Your task to perform on an android device: see sites visited before in the chrome app Image 0: 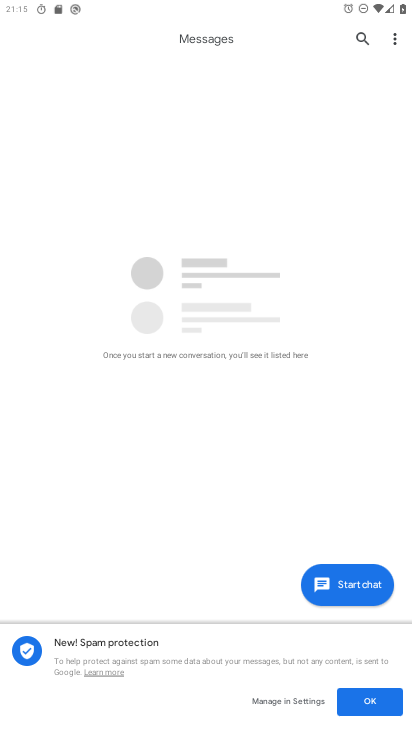
Step 0: drag from (203, 665) to (207, 385)
Your task to perform on an android device: see sites visited before in the chrome app Image 1: 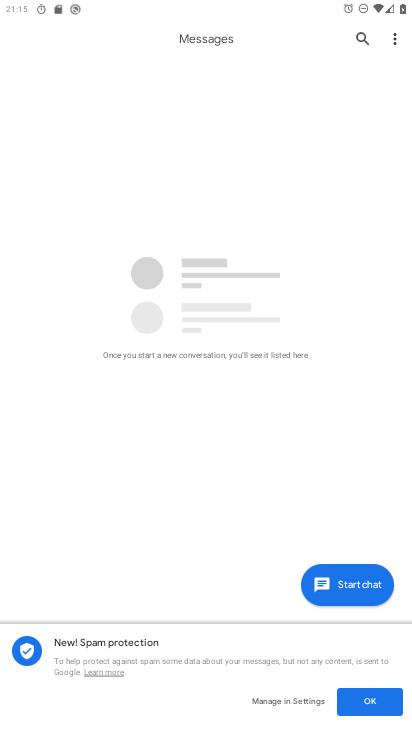
Step 1: press home button
Your task to perform on an android device: see sites visited before in the chrome app Image 2: 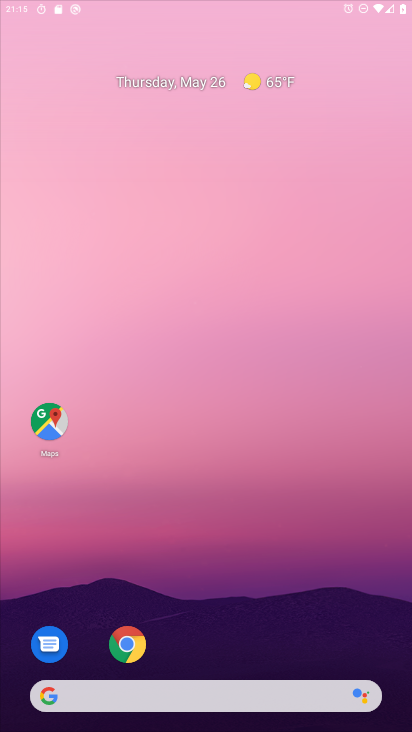
Step 2: drag from (205, 578) to (224, 129)
Your task to perform on an android device: see sites visited before in the chrome app Image 3: 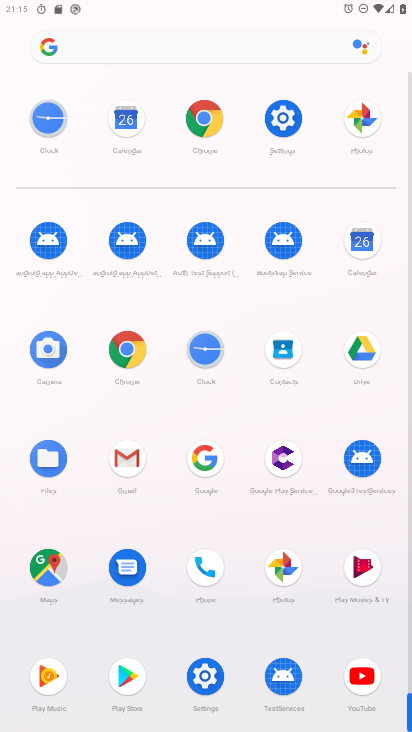
Step 3: click (122, 350)
Your task to perform on an android device: see sites visited before in the chrome app Image 4: 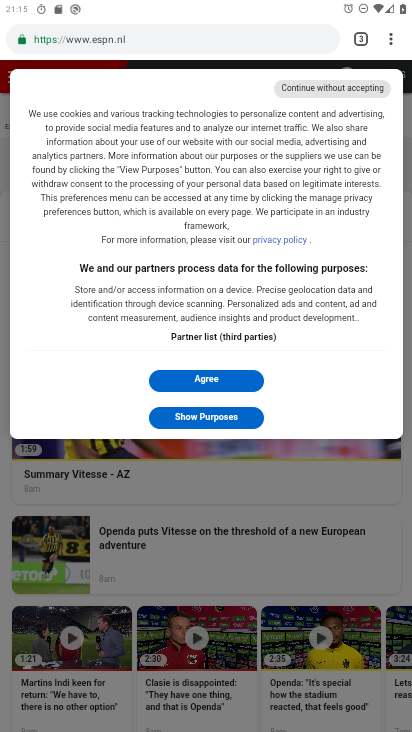
Step 4: click (204, 390)
Your task to perform on an android device: see sites visited before in the chrome app Image 5: 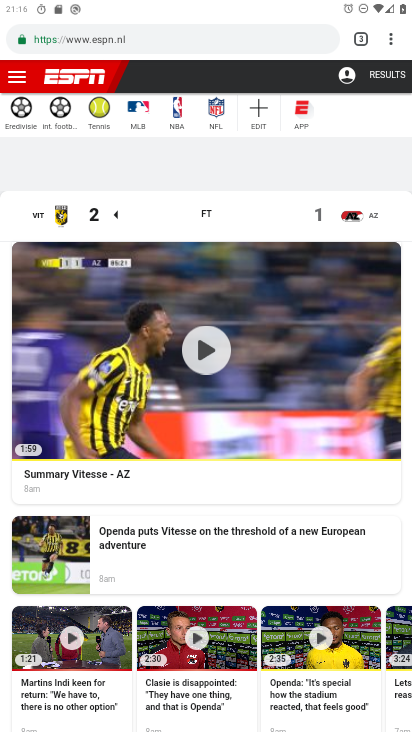
Step 5: task complete